Your task to perform on an android device: Go to calendar. Show me events next week Image 0: 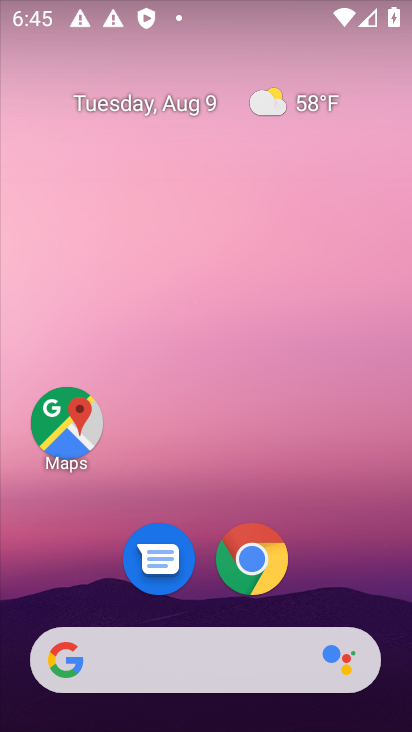
Step 0: drag from (225, 293) to (226, 132)
Your task to perform on an android device: Go to calendar. Show me events next week Image 1: 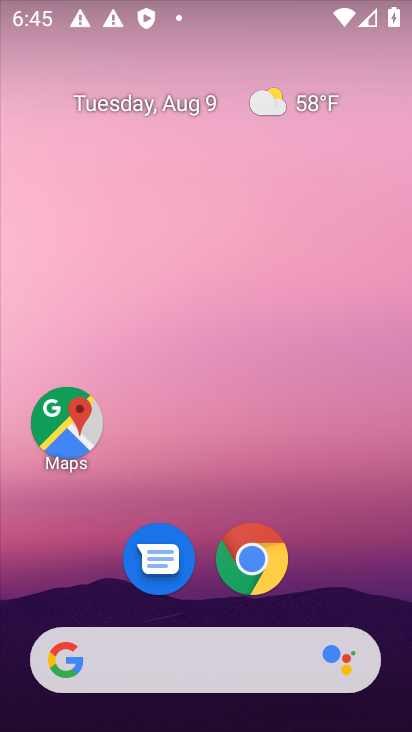
Step 1: drag from (202, 424) to (206, 184)
Your task to perform on an android device: Go to calendar. Show me events next week Image 2: 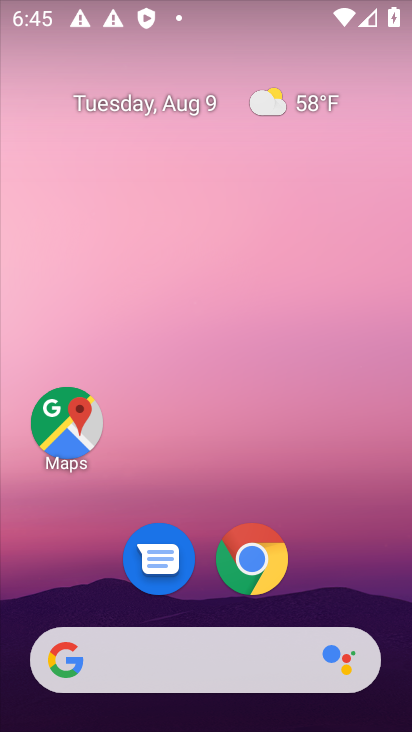
Step 2: drag from (192, 512) to (176, 192)
Your task to perform on an android device: Go to calendar. Show me events next week Image 3: 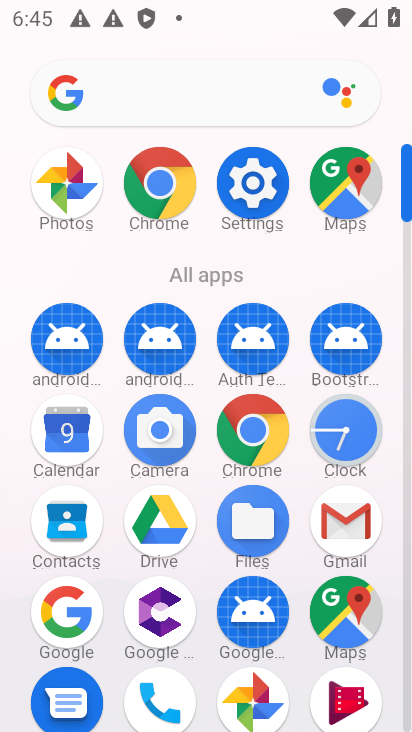
Step 3: click (69, 442)
Your task to perform on an android device: Go to calendar. Show me events next week Image 4: 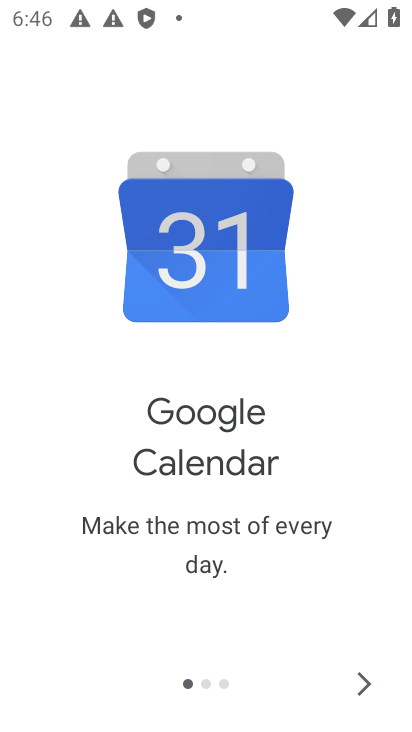
Step 4: click (362, 693)
Your task to perform on an android device: Go to calendar. Show me events next week Image 5: 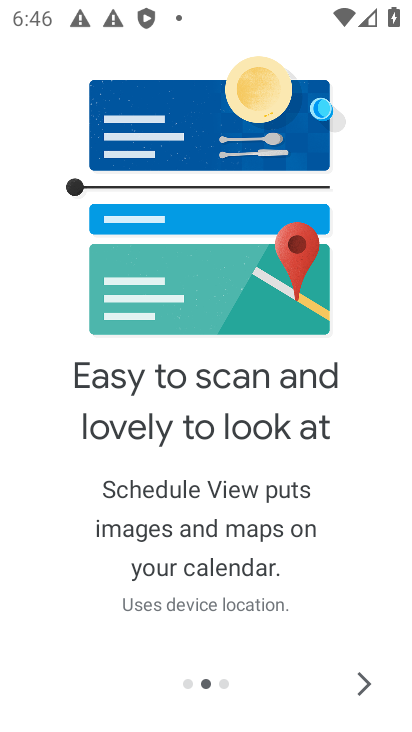
Step 5: click (362, 693)
Your task to perform on an android device: Go to calendar. Show me events next week Image 6: 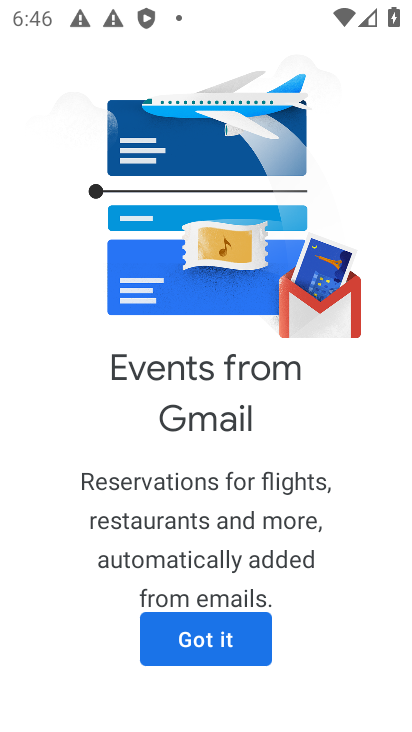
Step 6: click (166, 622)
Your task to perform on an android device: Go to calendar. Show me events next week Image 7: 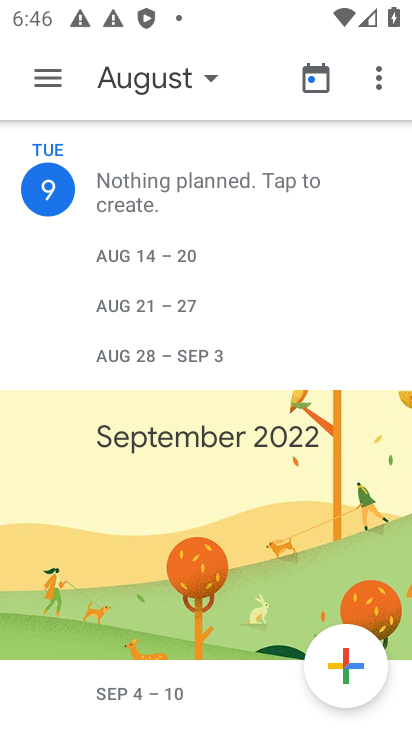
Step 7: click (50, 85)
Your task to perform on an android device: Go to calendar. Show me events next week Image 8: 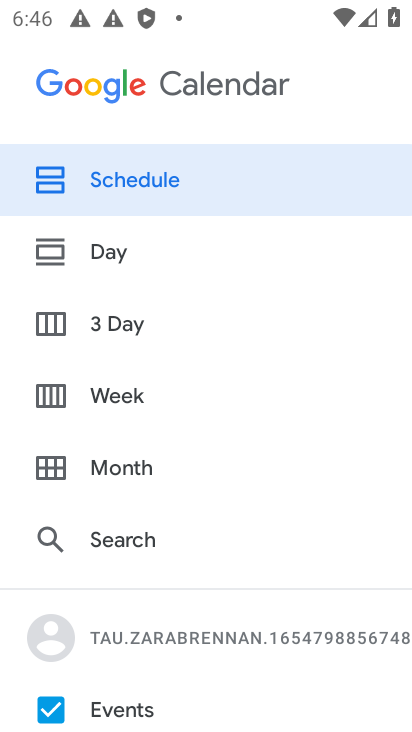
Step 8: click (108, 393)
Your task to perform on an android device: Go to calendar. Show me events next week Image 9: 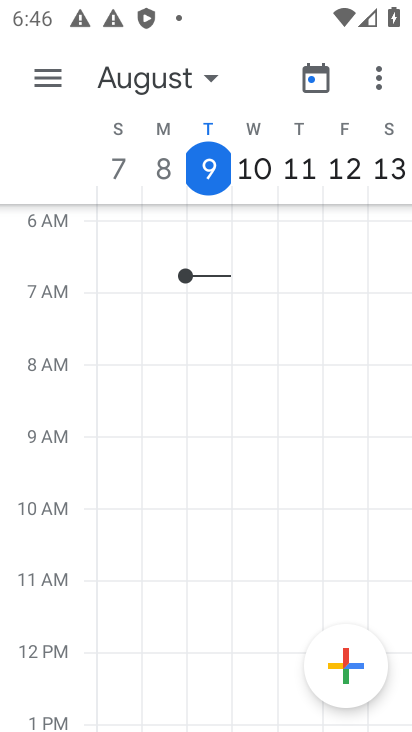
Step 9: click (147, 75)
Your task to perform on an android device: Go to calendar. Show me events next week Image 10: 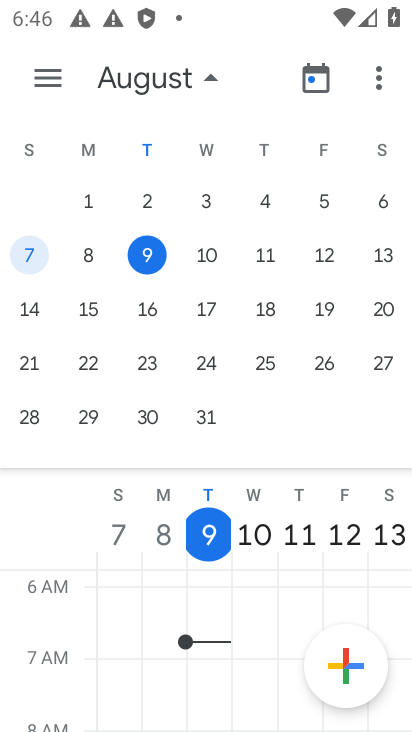
Step 10: click (28, 313)
Your task to perform on an android device: Go to calendar. Show me events next week Image 11: 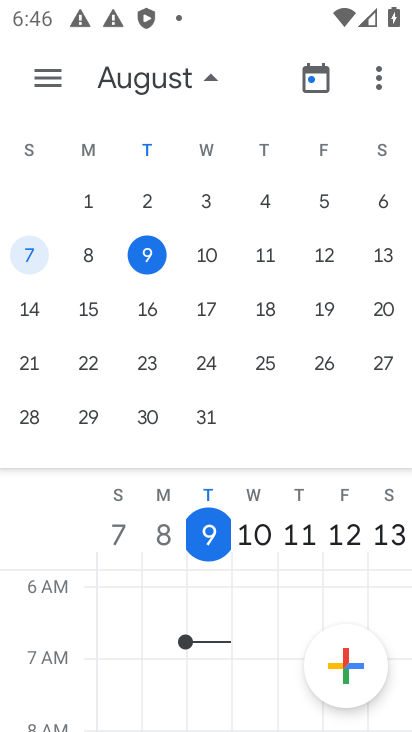
Step 11: click (28, 313)
Your task to perform on an android device: Go to calendar. Show me events next week Image 12: 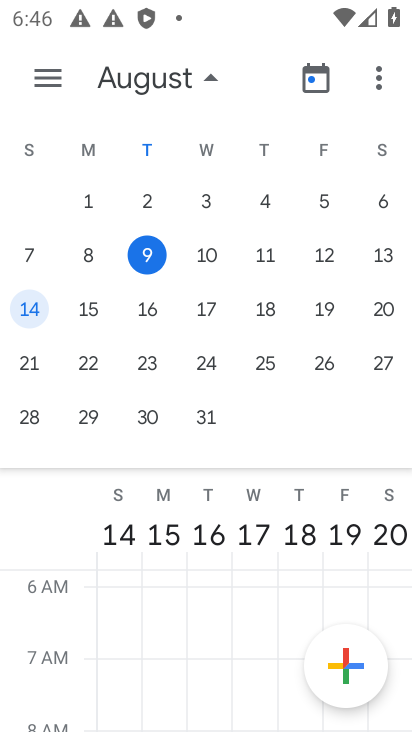
Step 12: task complete